Your task to perform on an android device: open a new tab in the chrome app Image 0: 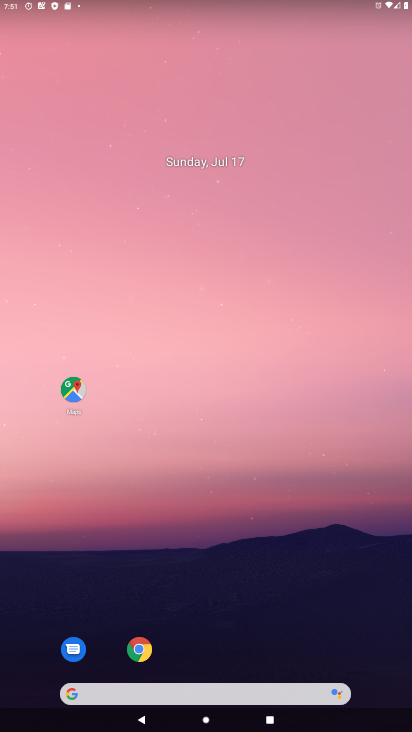
Step 0: drag from (241, 643) to (314, 79)
Your task to perform on an android device: open a new tab in the chrome app Image 1: 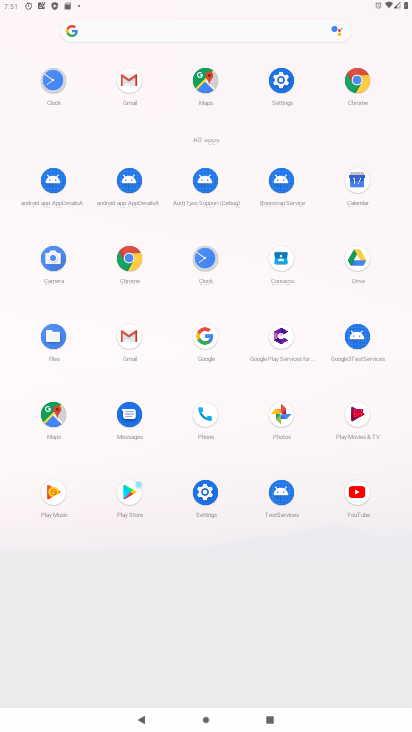
Step 1: click (122, 271)
Your task to perform on an android device: open a new tab in the chrome app Image 2: 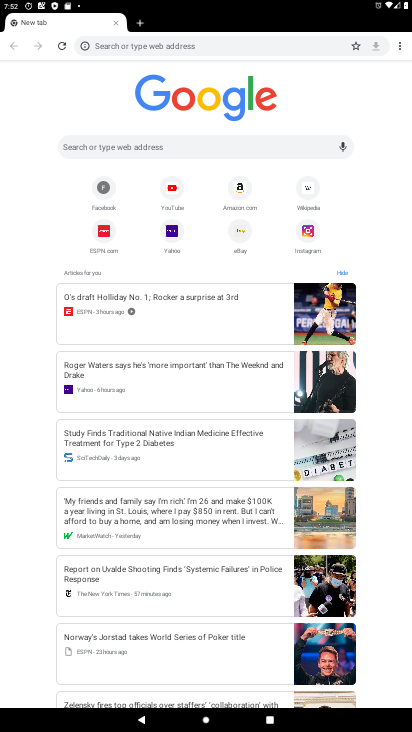
Step 2: click (130, 15)
Your task to perform on an android device: open a new tab in the chrome app Image 3: 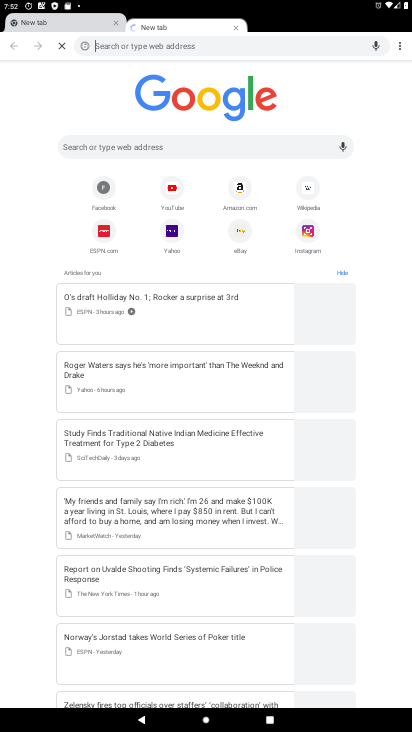
Step 3: click (136, 20)
Your task to perform on an android device: open a new tab in the chrome app Image 4: 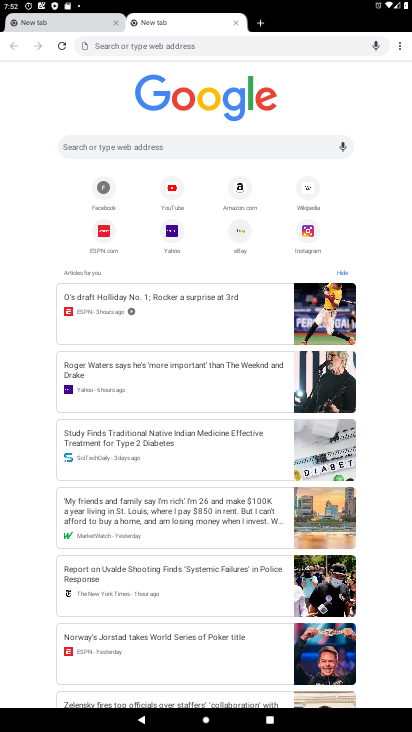
Step 4: task complete